Your task to perform on an android device: Is it going to rain tomorrow? Image 0: 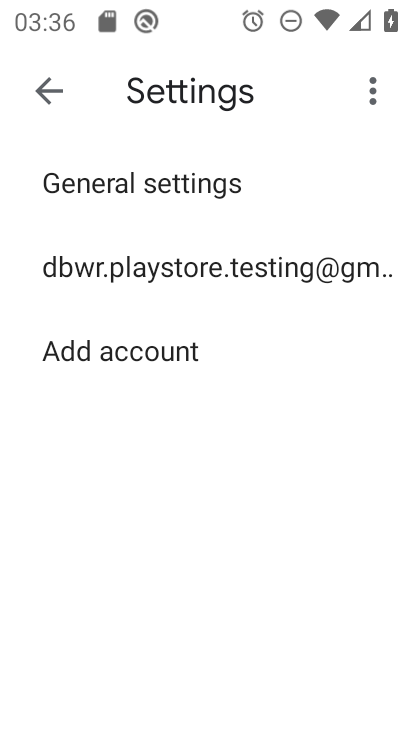
Step 0: press home button
Your task to perform on an android device: Is it going to rain tomorrow? Image 1: 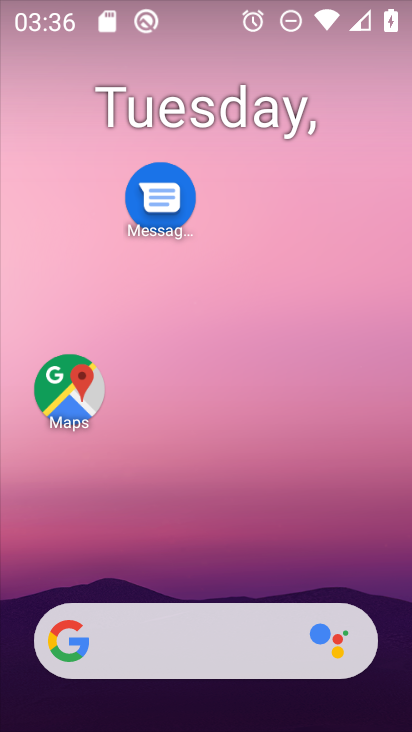
Step 1: drag from (177, 586) to (254, 211)
Your task to perform on an android device: Is it going to rain tomorrow? Image 2: 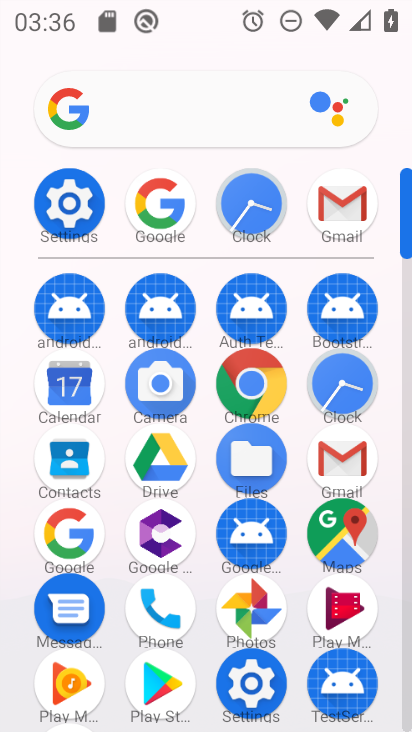
Step 2: click (68, 544)
Your task to perform on an android device: Is it going to rain tomorrow? Image 3: 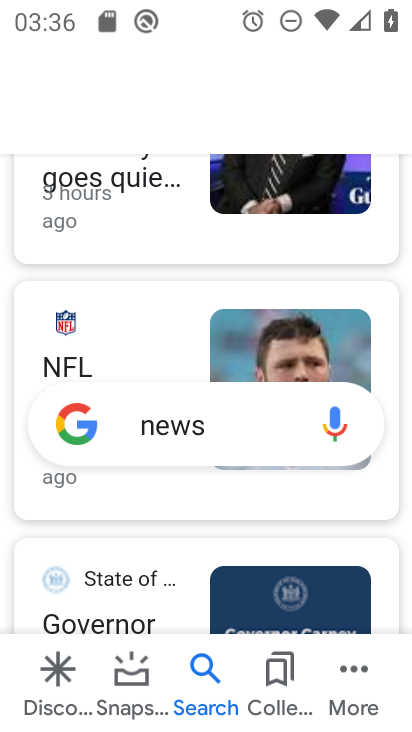
Step 3: drag from (196, 206) to (208, 504)
Your task to perform on an android device: Is it going to rain tomorrow? Image 4: 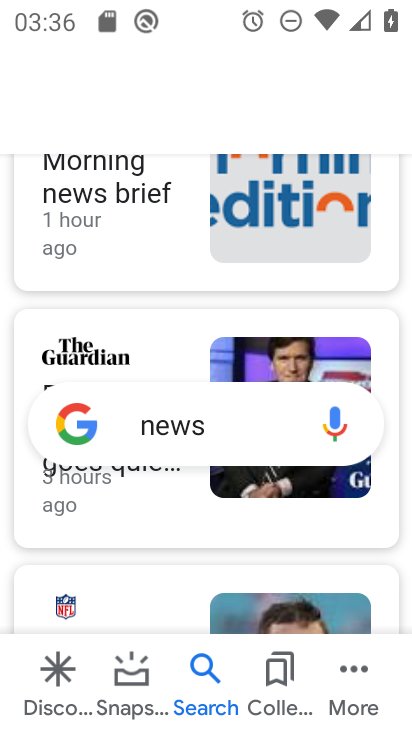
Step 4: drag from (170, 231) to (170, 452)
Your task to perform on an android device: Is it going to rain tomorrow? Image 5: 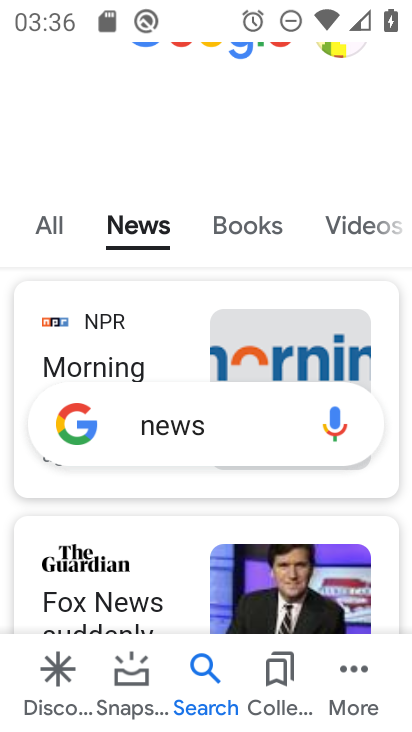
Step 5: drag from (192, 194) to (187, 532)
Your task to perform on an android device: Is it going to rain tomorrow? Image 6: 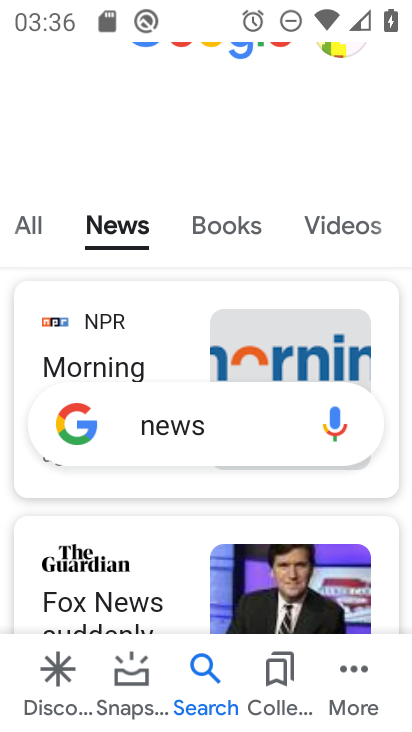
Step 6: drag from (191, 497) to (184, 640)
Your task to perform on an android device: Is it going to rain tomorrow? Image 7: 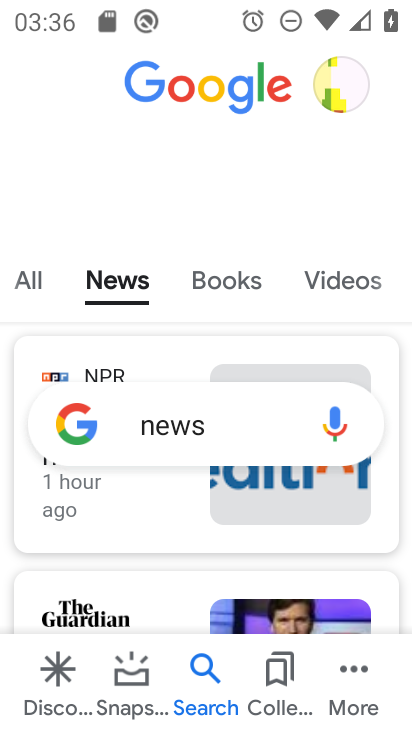
Step 7: drag from (185, 588) to (183, 664)
Your task to perform on an android device: Is it going to rain tomorrow? Image 8: 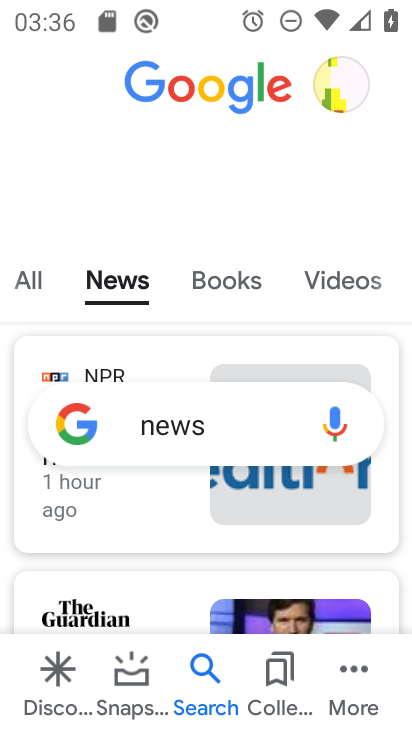
Step 8: click (255, 417)
Your task to perform on an android device: Is it going to rain tomorrow? Image 9: 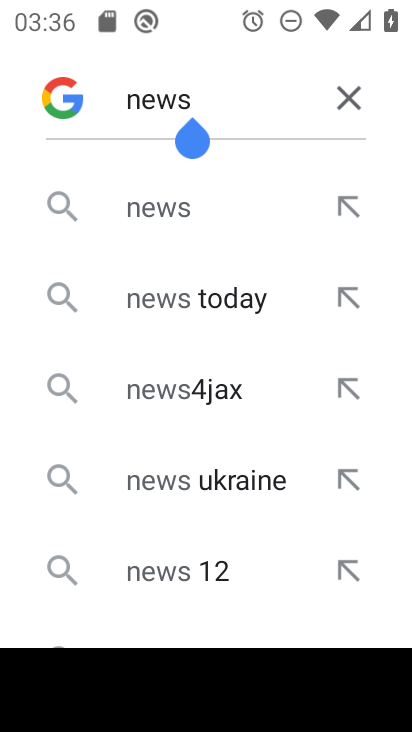
Step 9: click (340, 101)
Your task to perform on an android device: Is it going to rain tomorrow? Image 10: 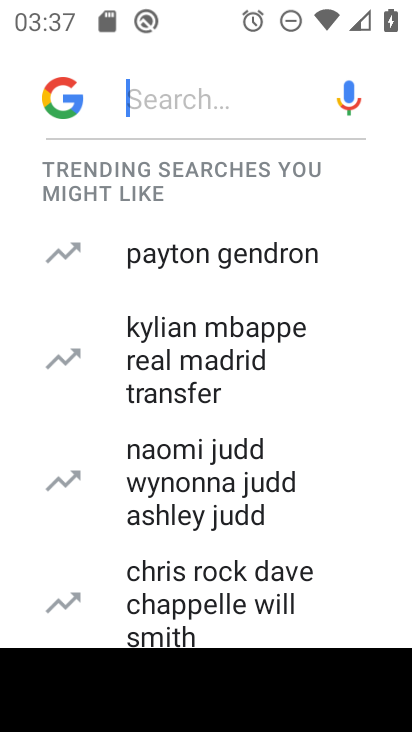
Step 10: click (176, 92)
Your task to perform on an android device: Is it going to rain tomorrow? Image 11: 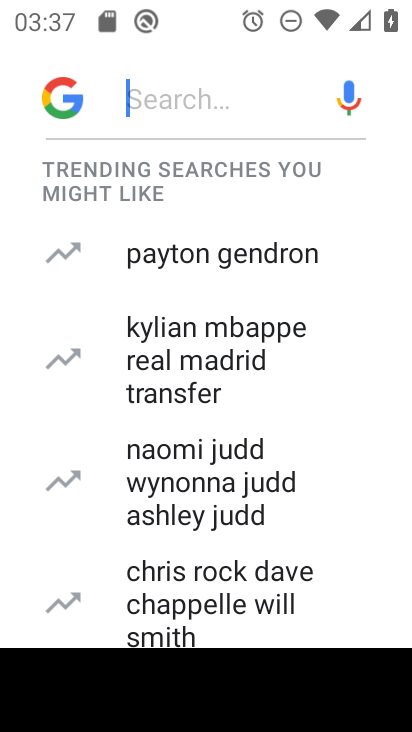
Step 11: type "weather"
Your task to perform on an android device: Is it going to rain tomorrow? Image 12: 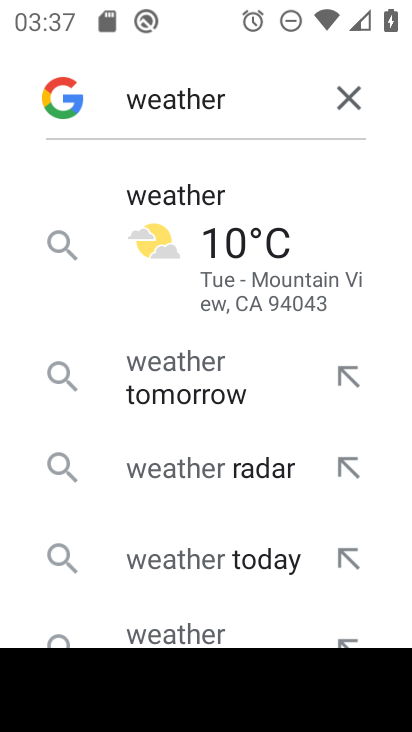
Step 12: click (235, 221)
Your task to perform on an android device: Is it going to rain tomorrow? Image 13: 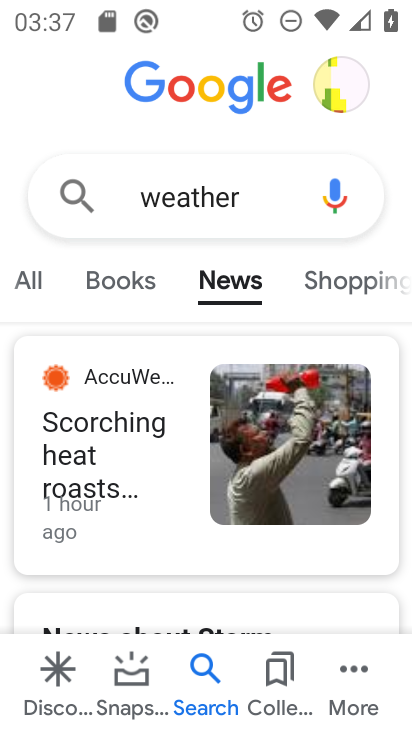
Step 13: click (31, 270)
Your task to perform on an android device: Is it going to rain tomorrow? Image 14: 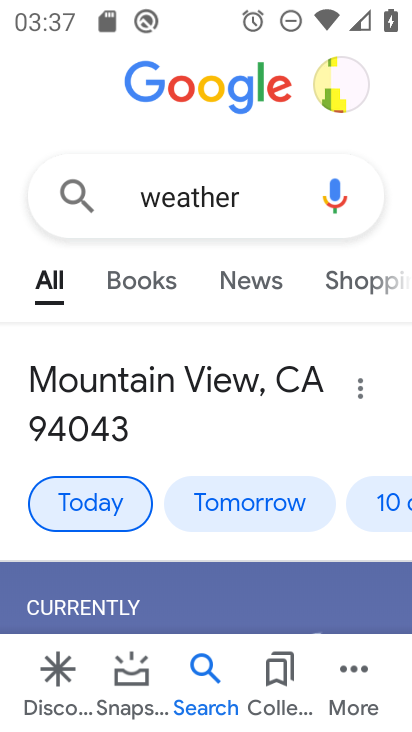
Step 14: click (290, 518)
Your task to perform on an android device: Is it going to rain tomorrow? Image 15: 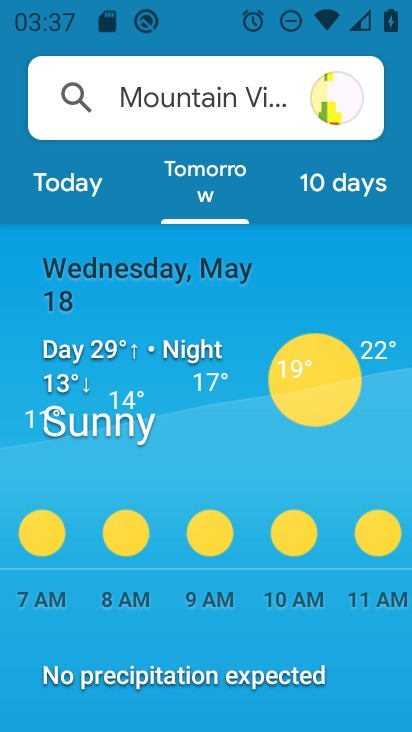
Step 15: task complete